Your task to perform on an android device: snooze an email in the gmail app Image 0: 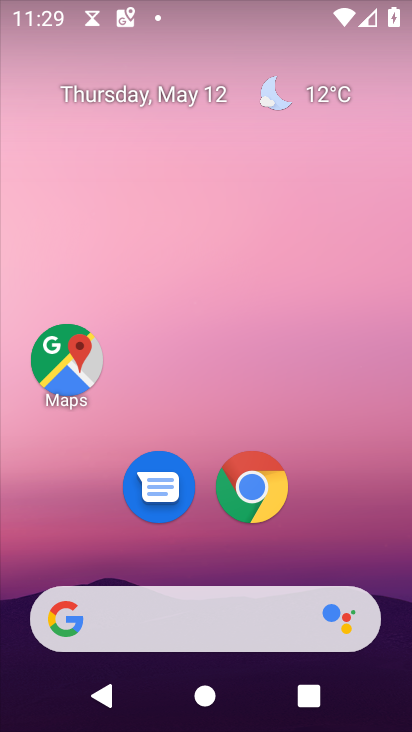
Step 0: drag from (368, 555) to (284, 3)
Your task to perform on an android device: snooze an email in the gmail app Image 1: 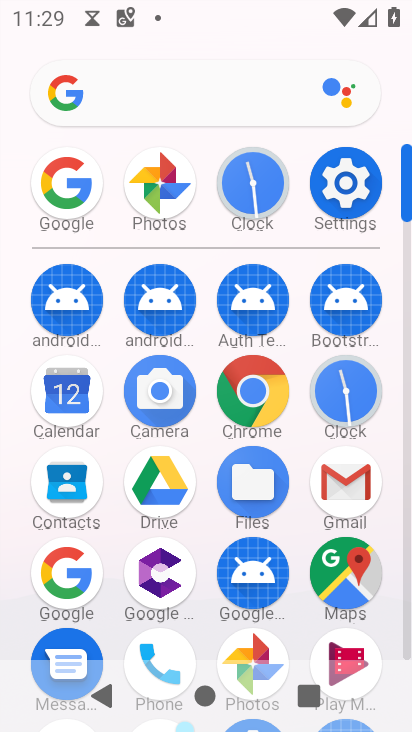
Step 1: click (345, 495)
Your task to perform on an android device: snooze an email in the gmail app Image 2: 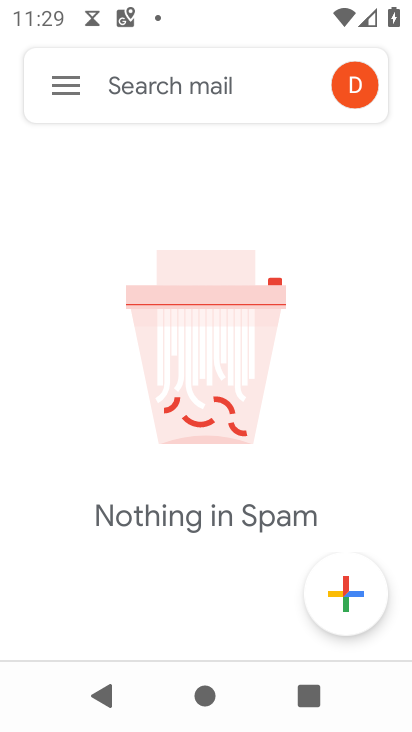
Step 2: click (65, 91)
Your task to perform on an android device: snooze an email in the gmail app Image 3: 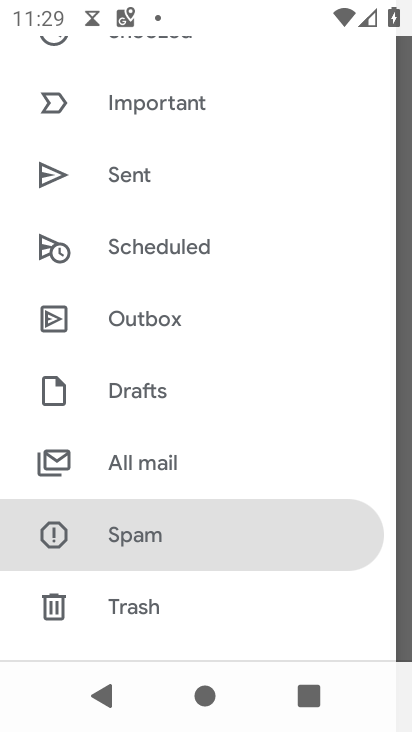
Step 3: click (155, 453)
Your task to perform on an android device: snooze an email in the gmail app Image 4: 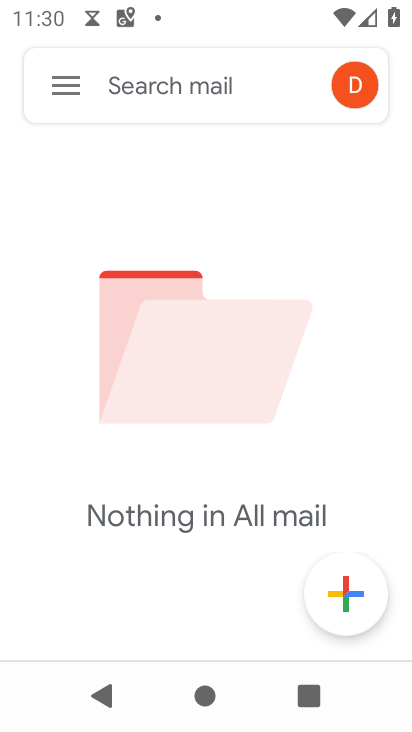
Step 4: click (68, 91)
Your task to perform on an android device: snooze an email in the gmail app Image 5: 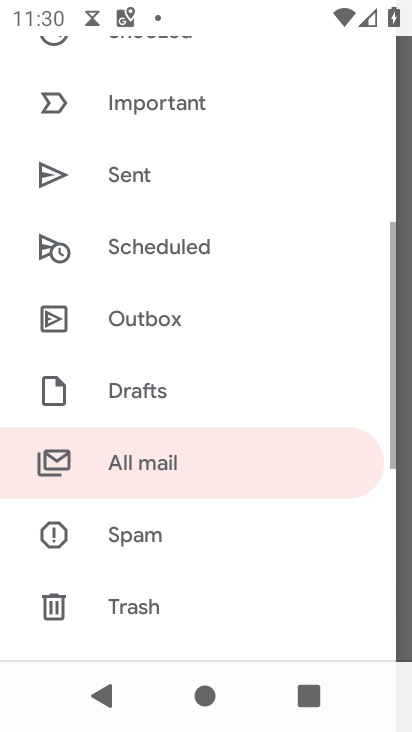
Step 5: task complete